Your task to perform on an android device: find snoozed emails in the gmail app Image 0: 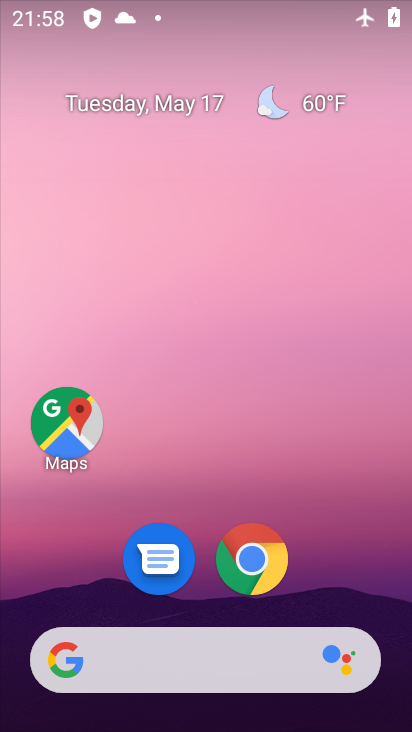
Step 0: drag from (307, 502) to (334, 59)
Your task to perform on an android device: find snoozed emails in the gmail app Image 1: 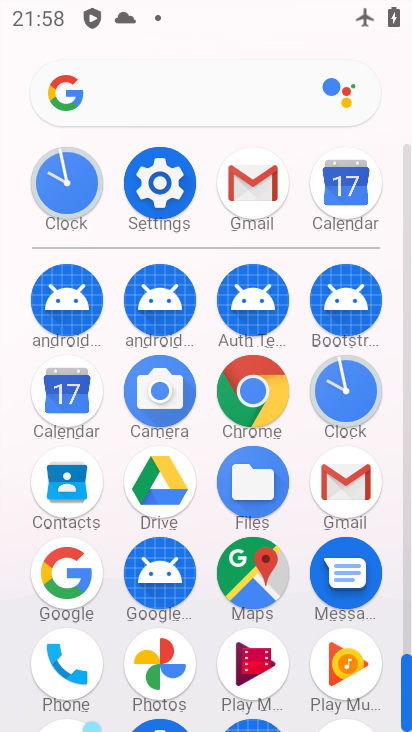
Step 1: click (258, 187)
Your task to perform on an android device: find snoozed emails in the gmail app Image 2: 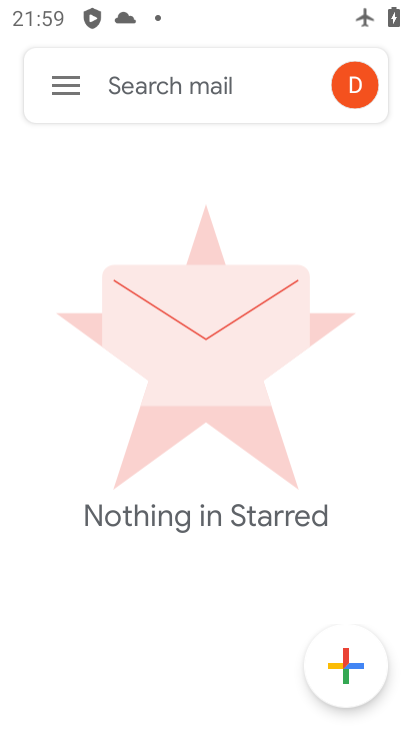
Step 2: click (60, 80)
Your task to perform on an android device: find snoozed emails in the gmail app Image 3: 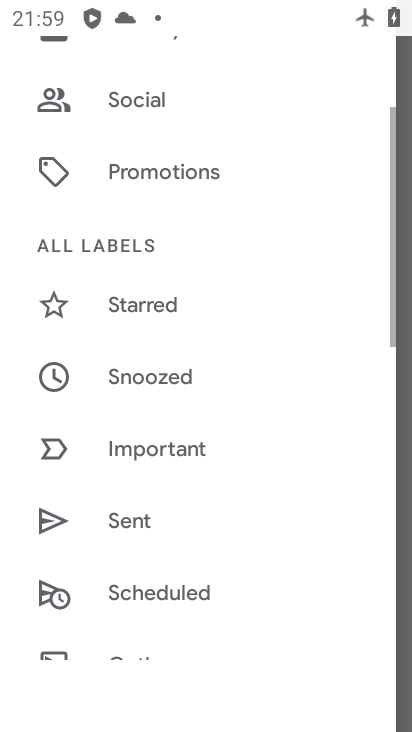
Step 3: drag from (287, 618) to (375, 76)
Your task to perform on an android device: find snoozed emails in the gmail app Image 4: 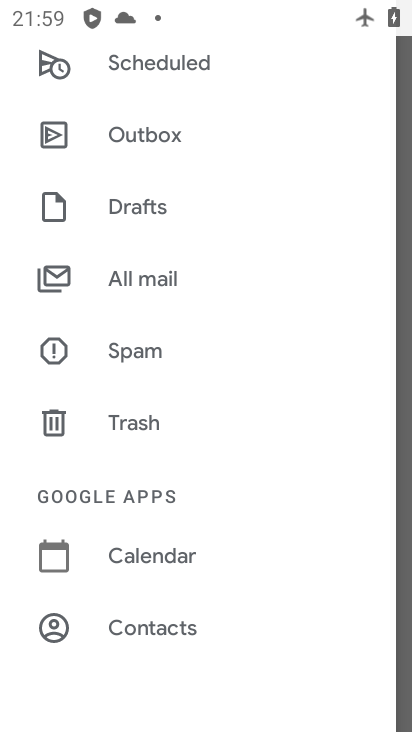
Step 4: drag from (224, 596) to (410, 66)
Your task to perform on an android device: find snoozed emails in the gmail app Image 5: 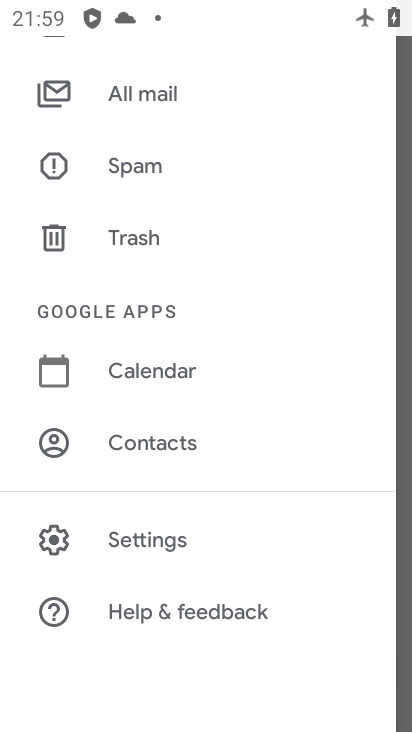
Step 5: drag from (165, 221) to (189, 676)
Your task to perform on an android device: find snoozed emails in the gmail app Image 6: 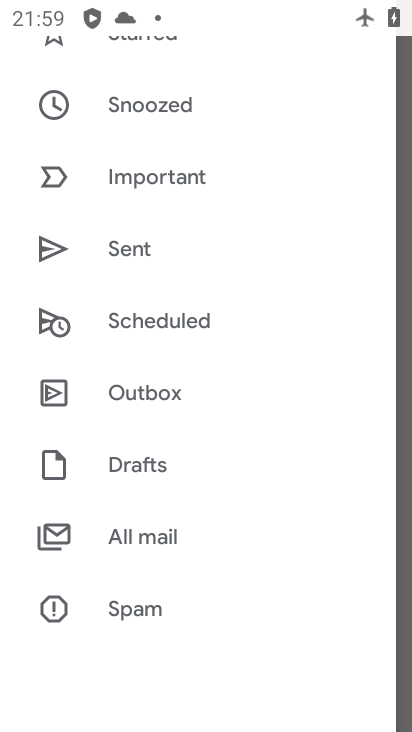
Step 6: click (171, 107)
Your task to perform on an android device: find snoozed emails in the gmail app Image 7: 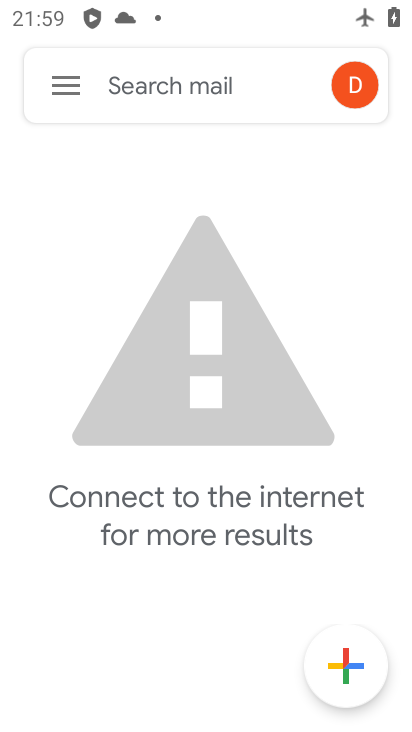
Step 7: task complete